Your task to perform on an android device: turn on priority inbox in the gmail app Image 0: 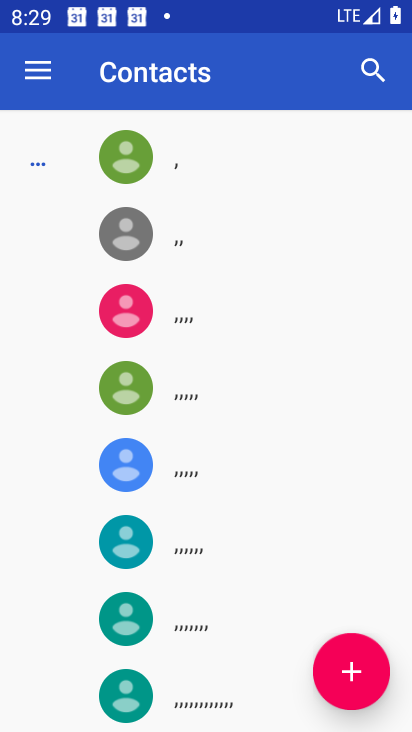
Step 0: press home button
Your task to perform on an android device: turn on priority inbox in the gmail app Image 1: 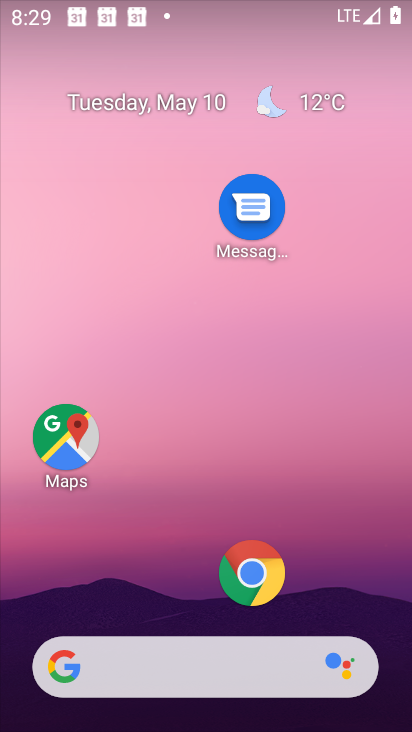
Step 1: drag from (177, 594) to (195, 28)
Your task to perform on an android device: turn on priority inbox in the gmail app Image 2: 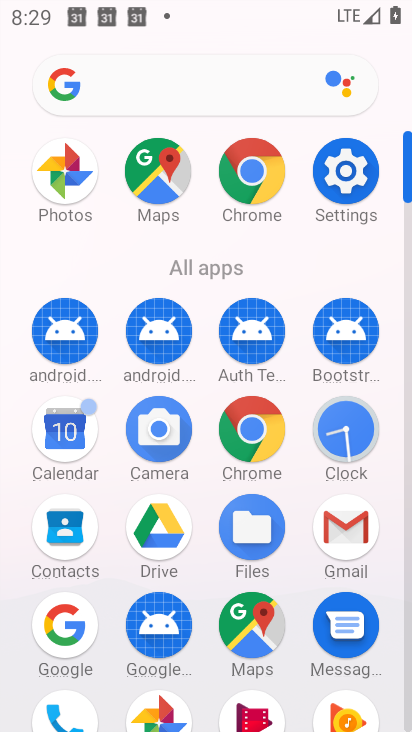
Step 2: click (347, 529)
Your task to perform on an android device: turn on priority inbox in the gmail app Image 3: 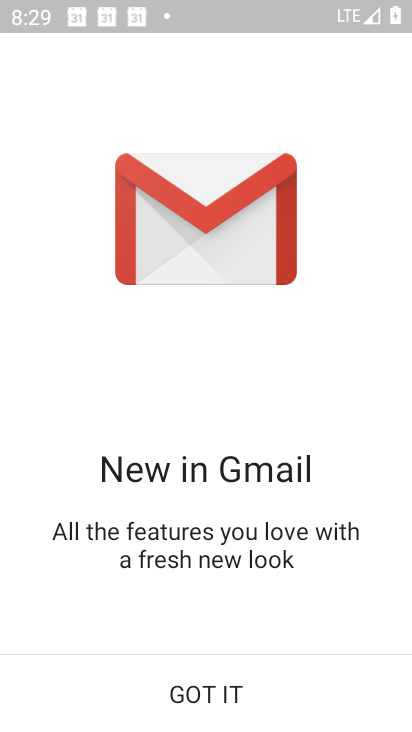
Step 3: click (211, 689)
Your task to perform on an android device: turn on priority inbox in the gmail app Image 4: 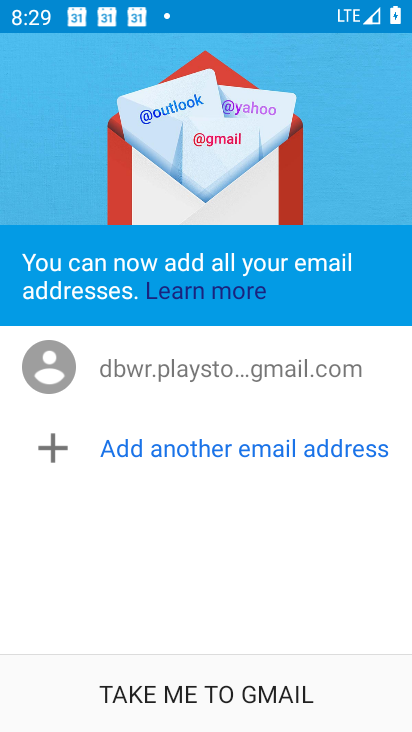
Step 4: click (212, 693)
Your task to perform on an android device: turn on priority inbox in the gmail app Image 5: 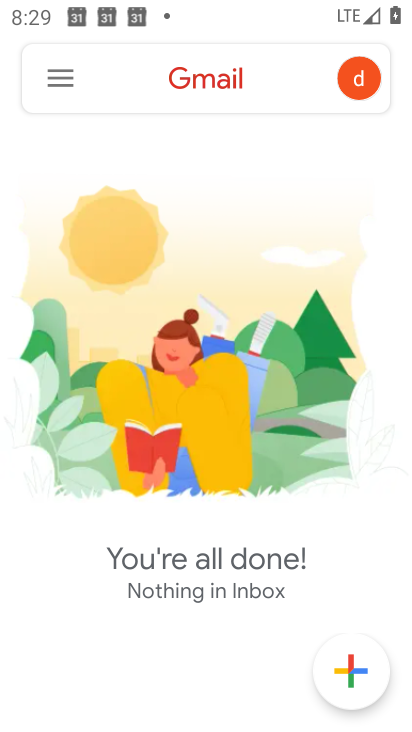
Step 5: click (55, 79)
Your task to perform on an android device: turn on priority inbox in the gmail app Image 6: 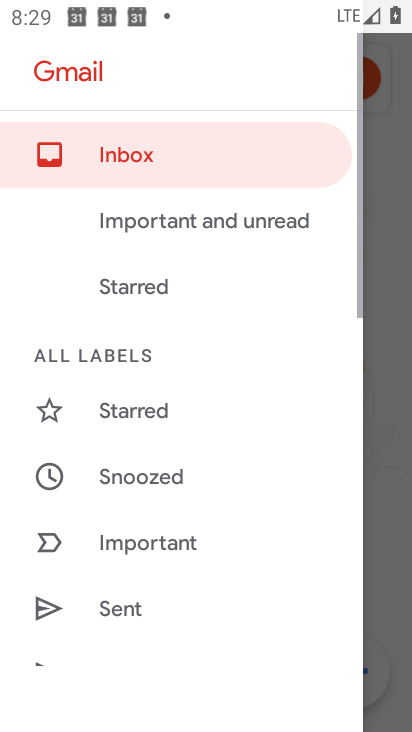
Step 6: drag from (199, 579) to (207, 58)
Your task to perform on an android device: turn on priority inbox in the gmail app Image 7: 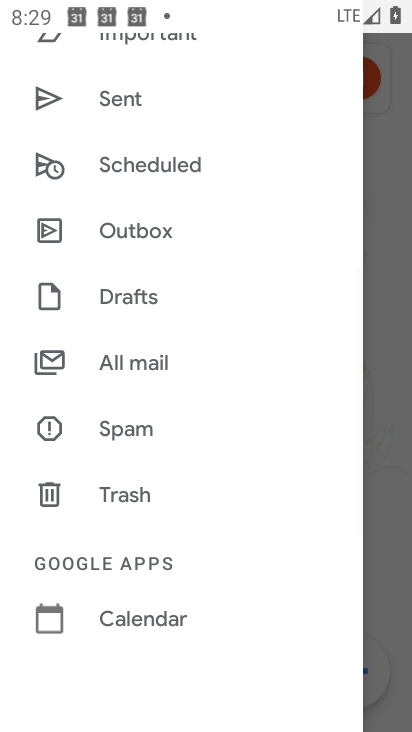
Step 7: drag from (186, 627) to (249, 146)
Your task to perform on an android device: turn on priority inbox in the gmail app Image 8: 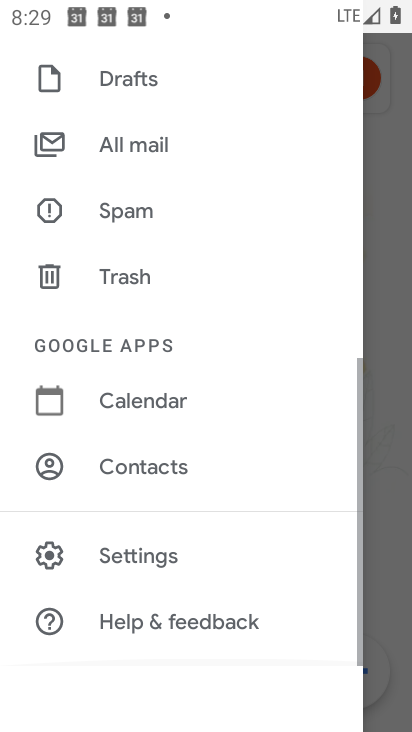
Step 8: click (147, 568)
Your task to perform on an android device: turn on priority inbox in the gmail app Image 9: 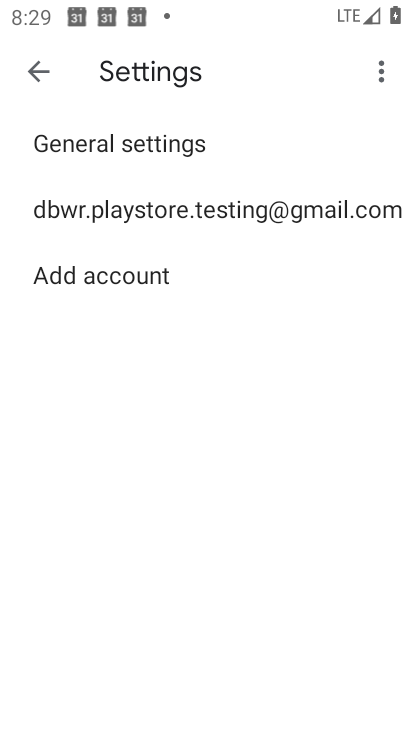
Step 9: click (159, 205)
Your task to perform on an android device: turn on priority inbox in the gmail app Image 10: 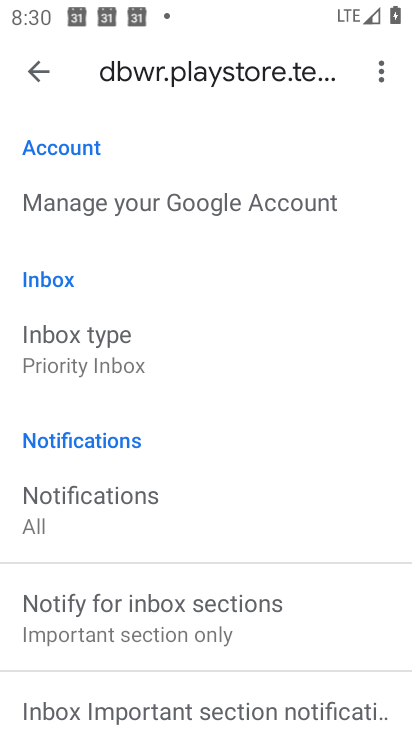
Step 10: task complete